Your task to perform on an android device: Go to Google Image 0: 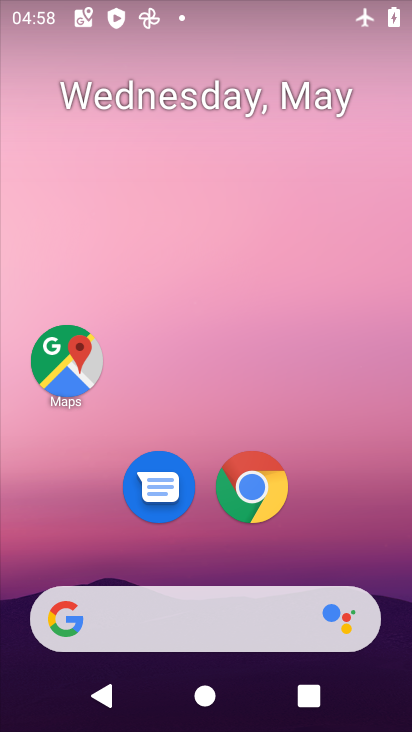
Step 0: click (261, 510)
Your task to perform on an android device: Go to Google Image 1: 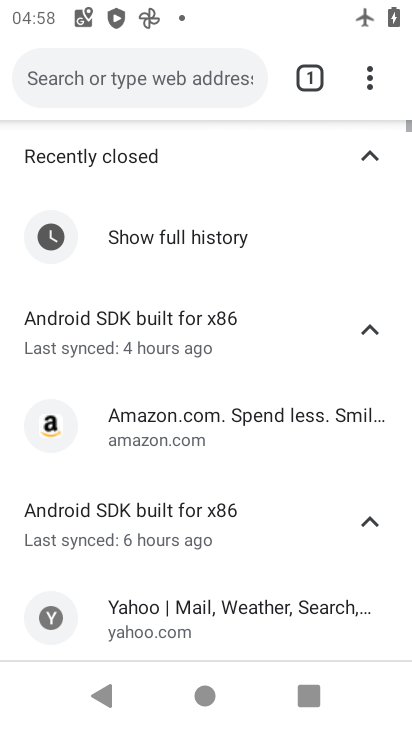
Step 1: click (200, 75)
Your task to perform on an android device: Go to Google Image 2: 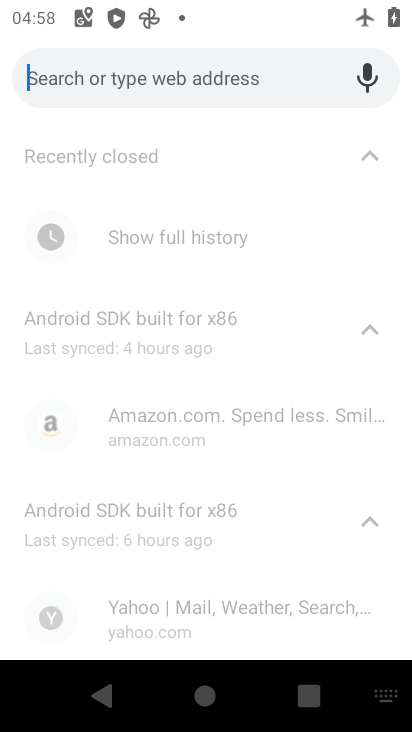
Step 2: type "google.com"
Your task to perform on an android device: Go to Google Image 3: 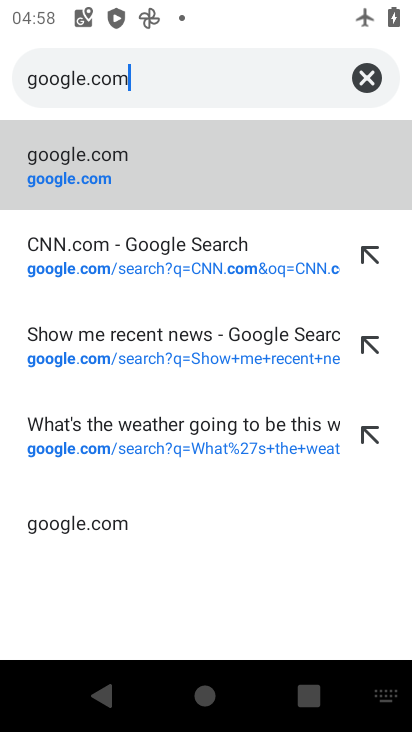
Step 3: click (157, 180)
Your task to perform on an android device: Go to Google Image 4: 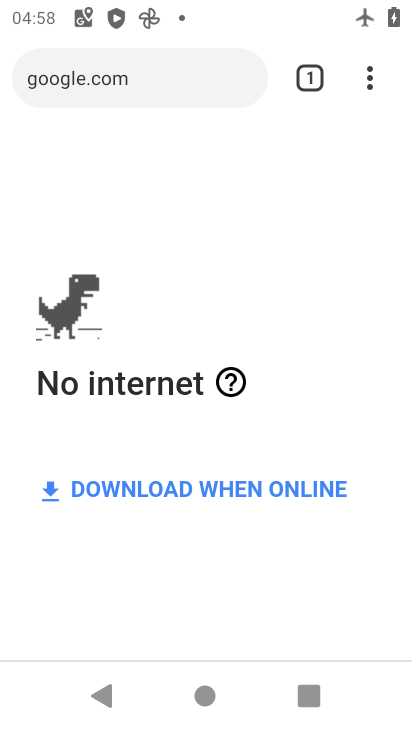
Step 4: task complete